Your task to perform on an android device: turn off airplane mode Image 0: 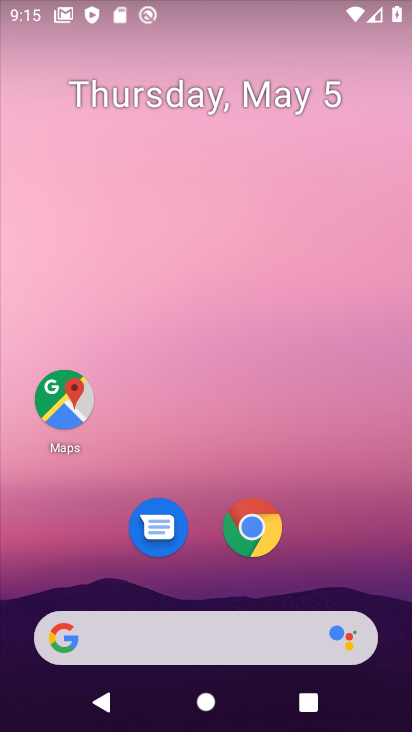
Step 0: drag from (315, 584) to (305, 163)
Your task to perform on an android device: turn off airplane mode Image 1: 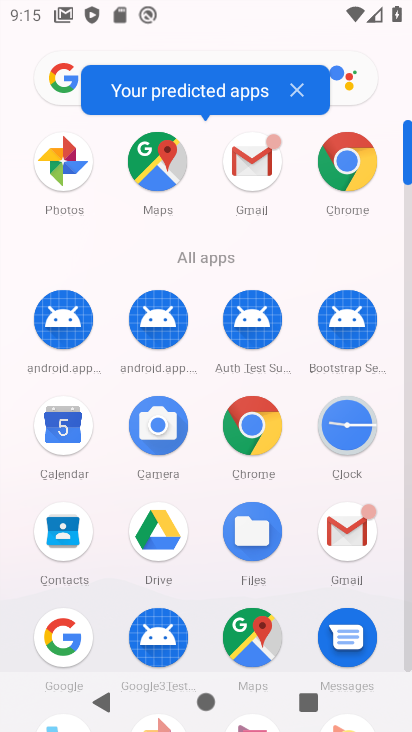
Step 1: drag from (235, 516) to (260, 123)
Your task to perform on an android device: turn off airplane mode Image 2: 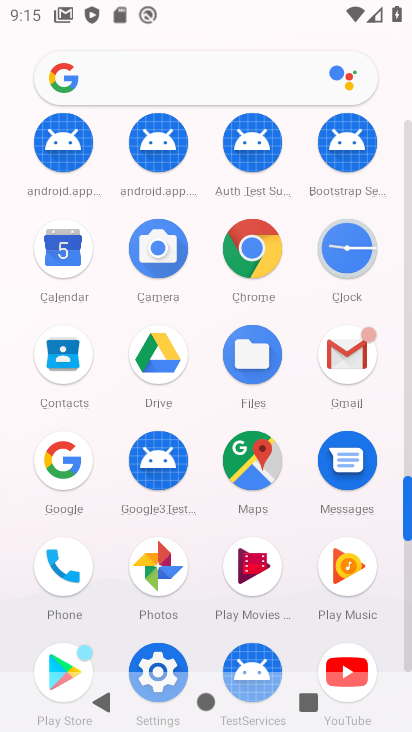
Step 2: click (165, 660)
Your task to perform on an android device: turn off airplane mode Image 3: 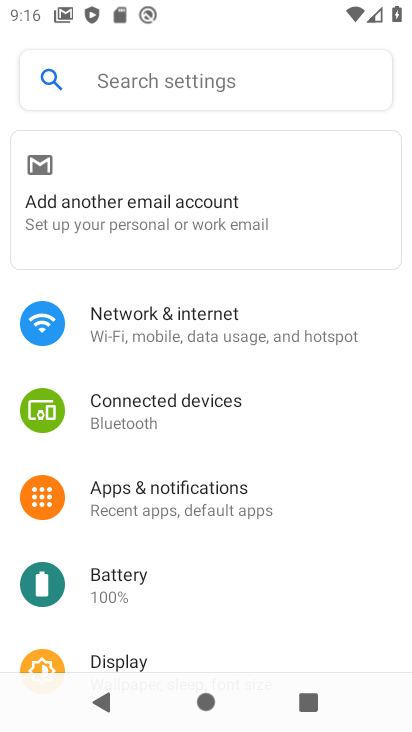
Step 3: click (147, 344)
Your task to perform on an android device: turn off airplane mode Image 4: 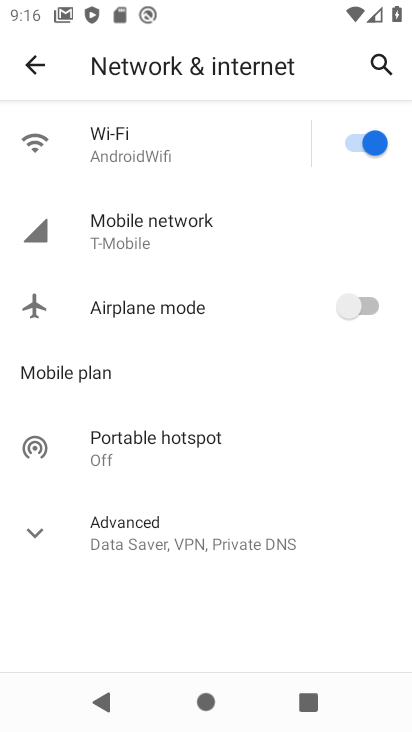
Step 4: task complete